Your task to perform on an android device: turn notification dots off Image 0: 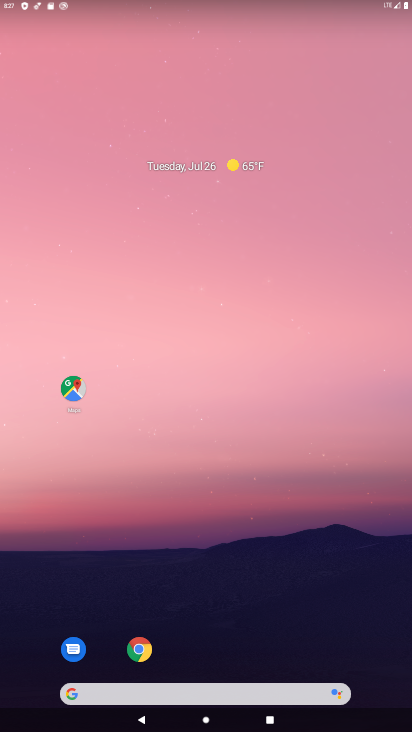
Step 0: drag from (202, 699) to (322, 58)
Your task to perform on an android device: turn notification dots off Image 1: 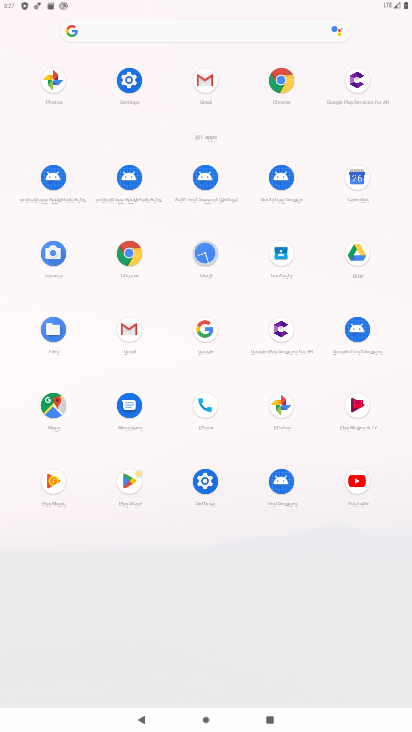
Step 1: click (131, 78)
Your task to perform on an android device: turn notification dots off Image 2: 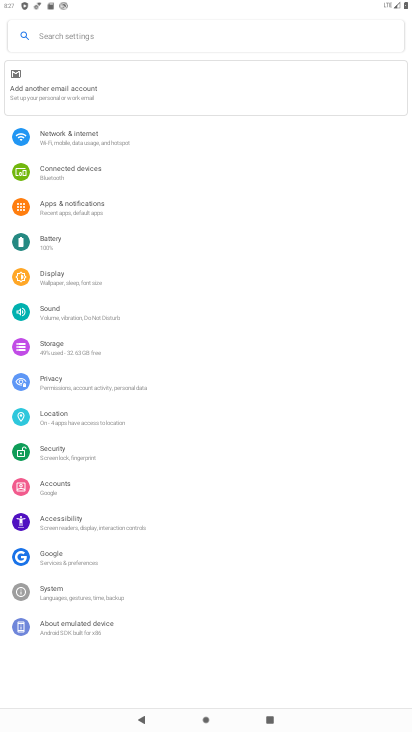
Step 2: click (63, 209)
Your task to perform on an android device: turn notification dots off Image 3: 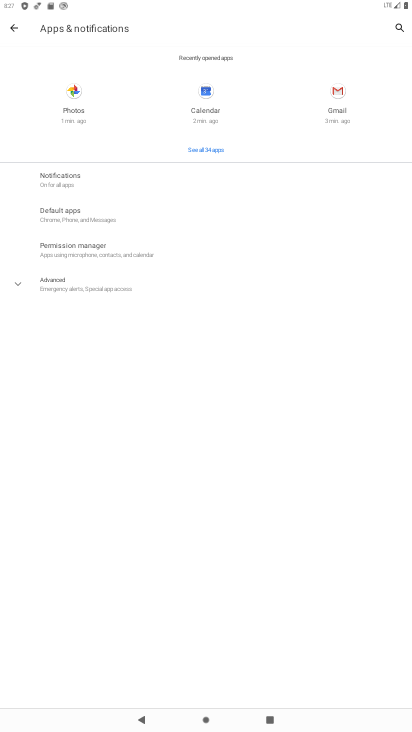
Step 3: click (61, 175)
Your task to perform on an android device: turn notification dots off Image 4: 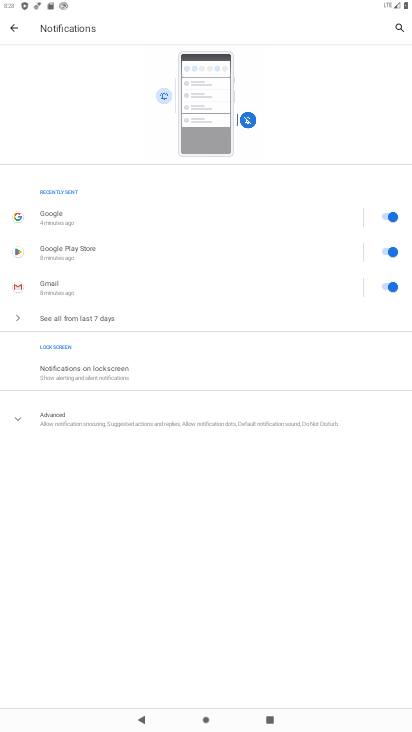
Step 4: click (70, 423)
Your task to perform on an android device: turn notification dots off Image 5: 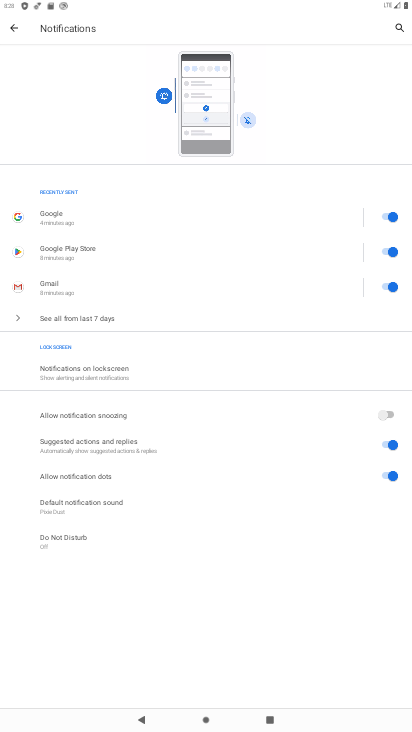
Step 5: click (395, 475)
Your task to perform on an android device: turn notification dots off Image 6: 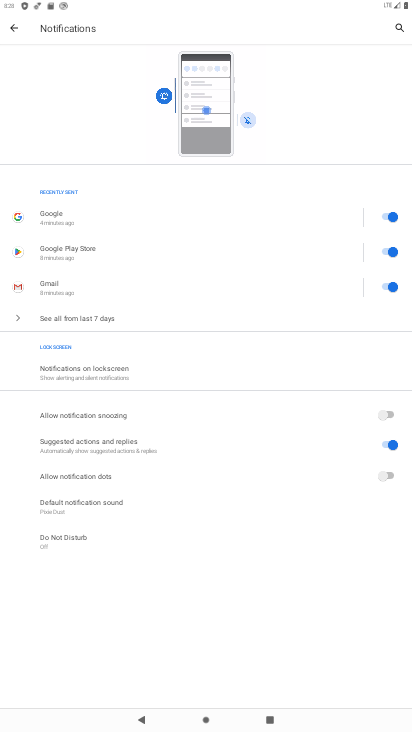
Step 6: task complete